Your task to perform on an android device: check the backup settings in the google photos Image 0: 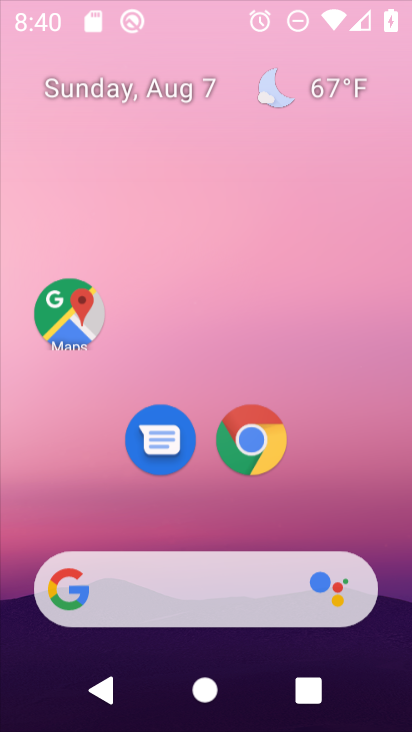
Step 0: press home button
Your task to perform on an android device: check the backup settings in the google photos Image 1: 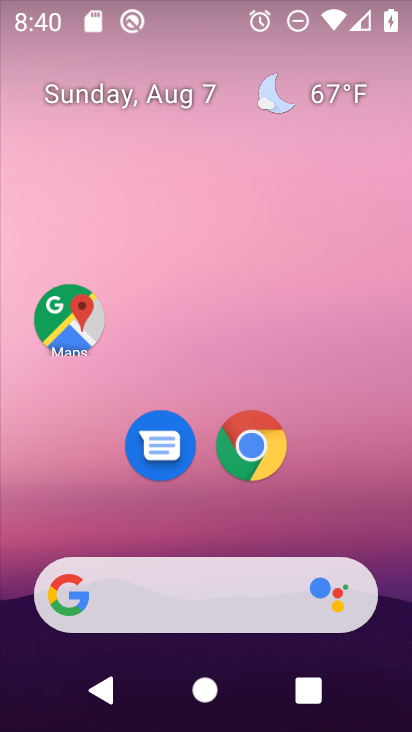
Step 1: drag from (5, 380) to (404, 392)
Your task to perform on an android device: check the backup settings in the google photos Image 2: 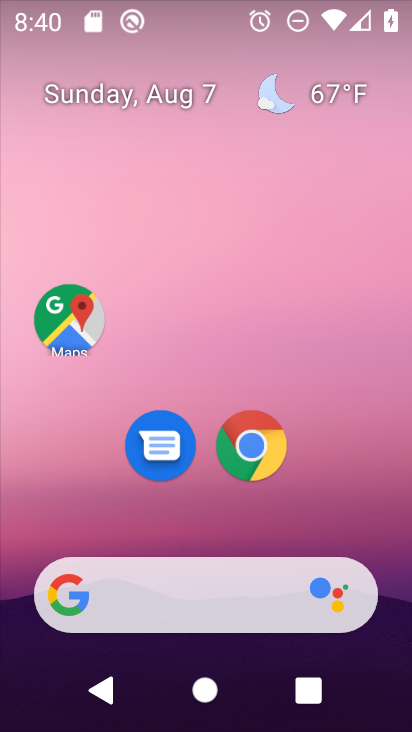
Step 2: drag from (252, 478) to (276, 72)
Your task to perform on an android device: check the backup settings in the google photos Image 3: 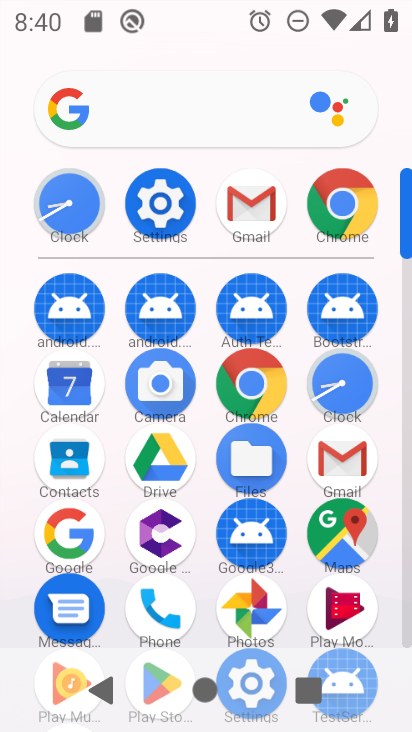
Step 3: click (250, 595)
Your task to perform on an android device: check the backup settings in the google photos Image 4: 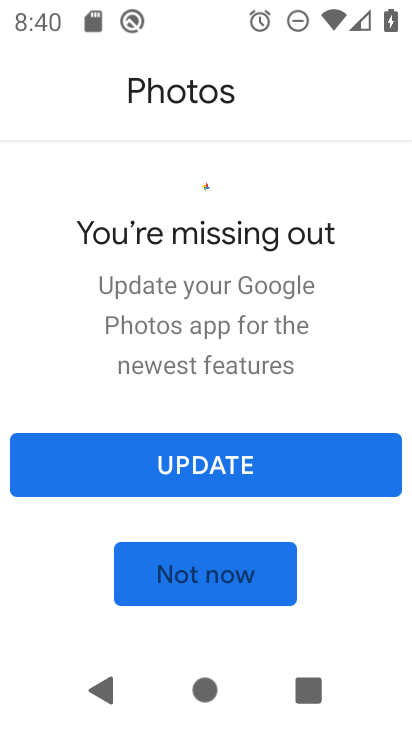
Step 4: click (200, 465)
Your task to perform on an android device: check the backup settings in the google photos Image 5: 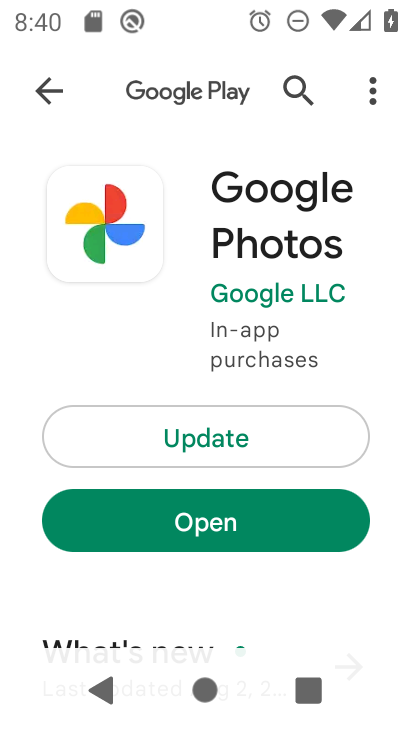
Step 5: click (212, 433)
Your task to perform on an android device: check the backup settings in the google photos Image 6: 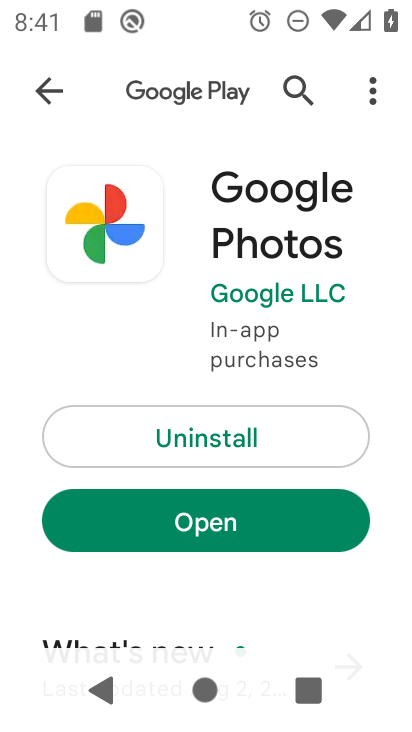
Step 6: click (208, 520)
Your task to perform on an android device: check the backup settings in the google photos Image 7: 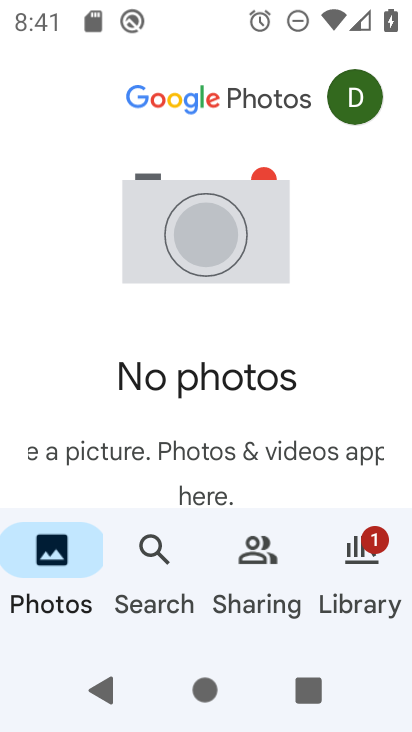
Step 7: click (348, 95)
Your task to perform on an android device: check the backup settings in the google photos Image 8: 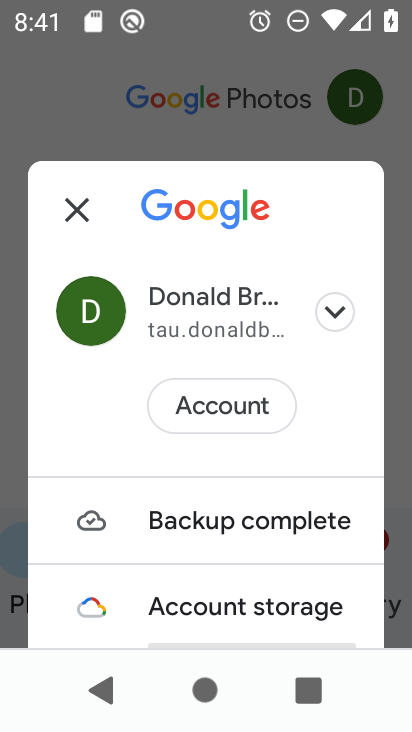
Step 8: click (213, 520)
Your task to perform on an android device: check the backup settings in the google photos Image 9: 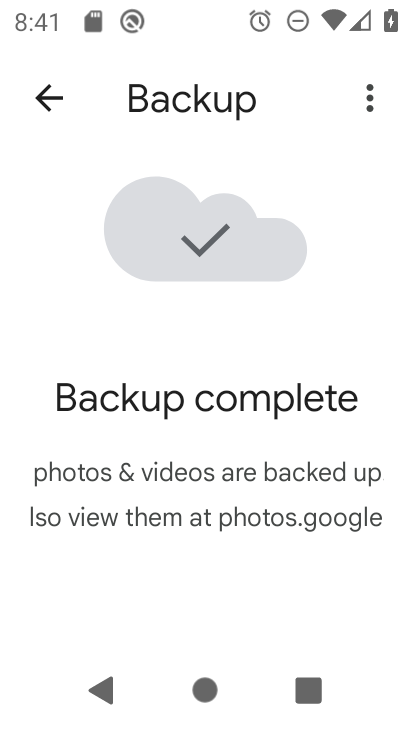
Step 9: click (365, 96)
Your task to perform on an android device: check the backup settings in the google photos Image 10: 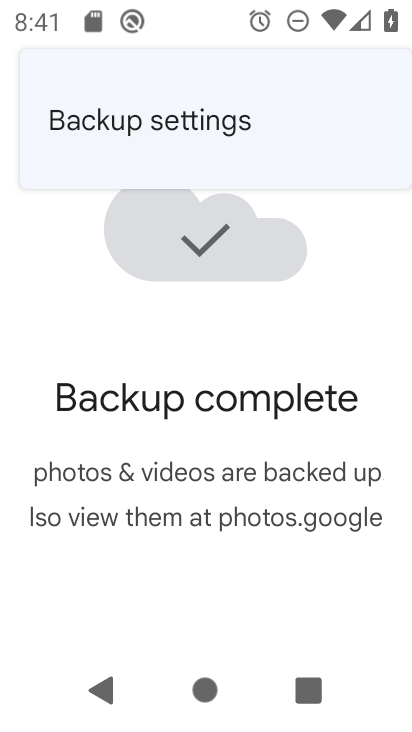
Step 10: click (164, 130)
Your task to perform on an android device: check the backup settings in the google photos Image 11: 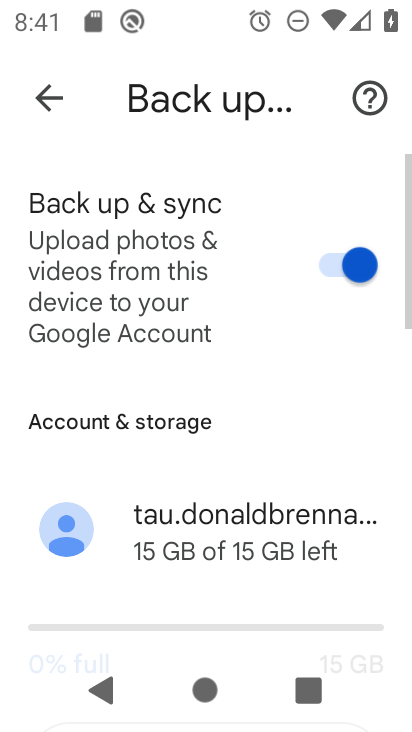
Step 11: task complete